Your task to perform on an android device: Go to Wikipedia Image 0: 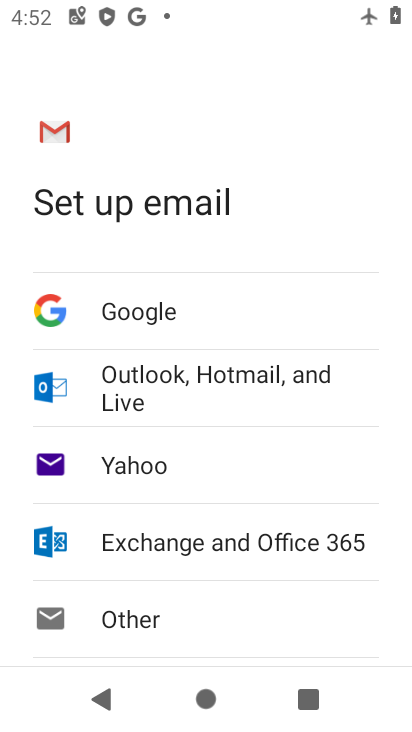
Step 0: press home button
Your task to perform on an android device: Go to Wikipedia Image 1: 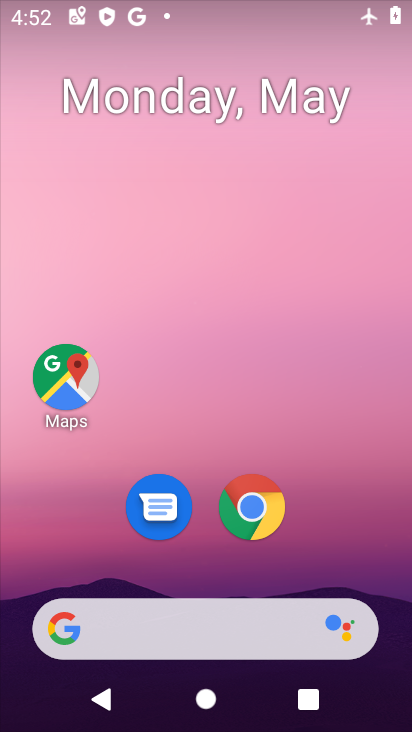
Step 1: drag from (350, 587) to (377, 72)
Your task to perform on an android device: Go to Wikipedia Image 2: 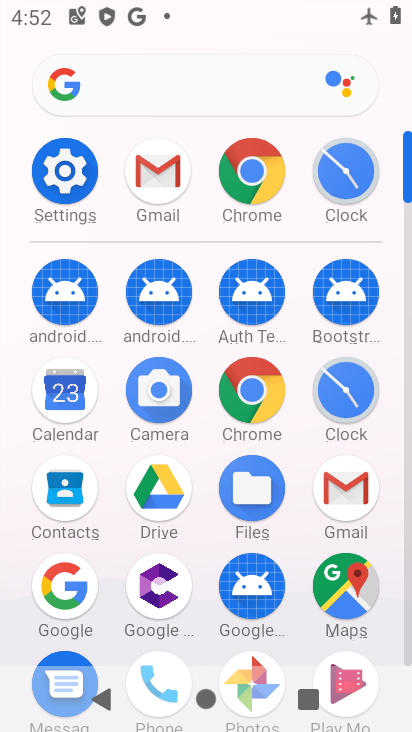
Step 2: click (250, 177)
Your task to perform on an android device: Go to Wikipedia Image 3: 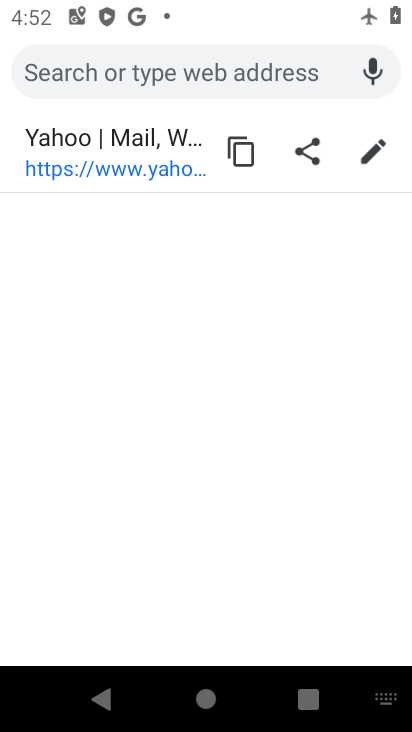
Step 3: click (192, 77)
Your task to perform on an android device: Go to Wikipedia Image 4: 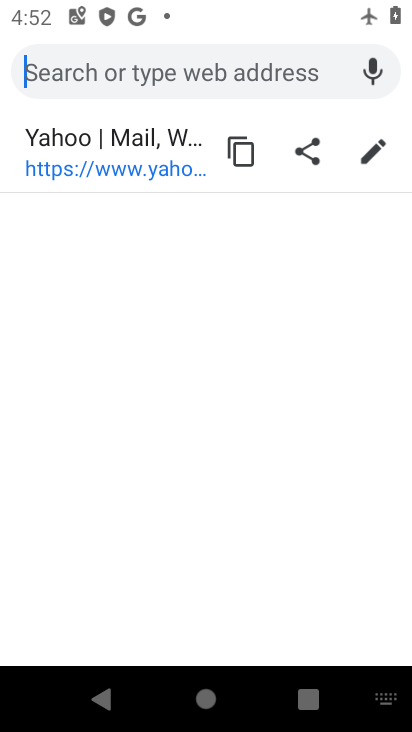
Step 4: type "wikipedia"
Your task to perform on an android device: Go to Wikipedia Image 5: 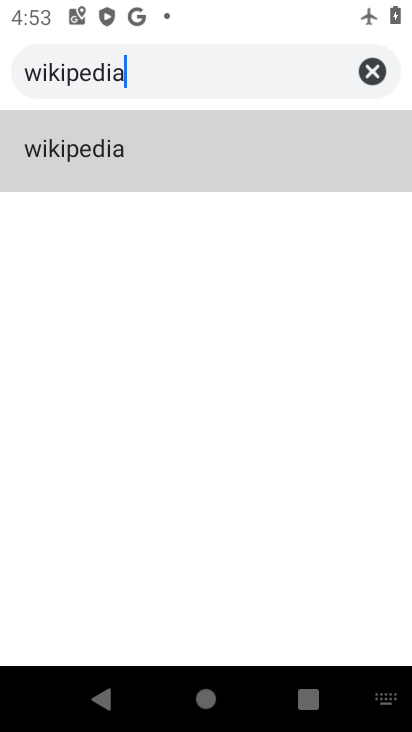
Step 5: click (62, 157)
Your task to perform on an android device: Go to Wikipedia Image 6: 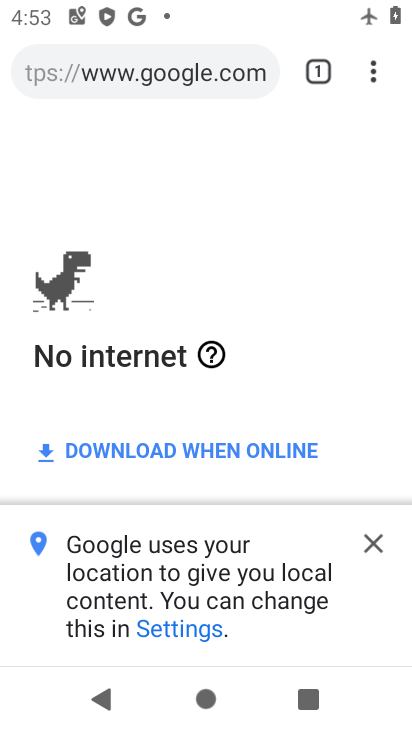
Step 6: task complete